Your task to perform on an android device: Open network settings Image 0: 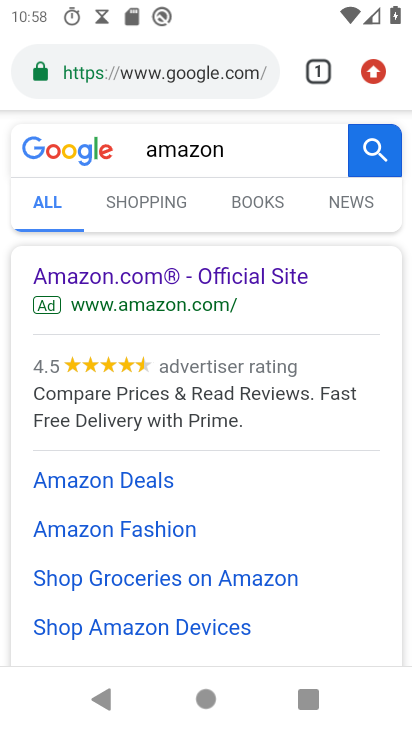
Step 0: press home button
Your task to perform on an android device: Open network settings Image 1: 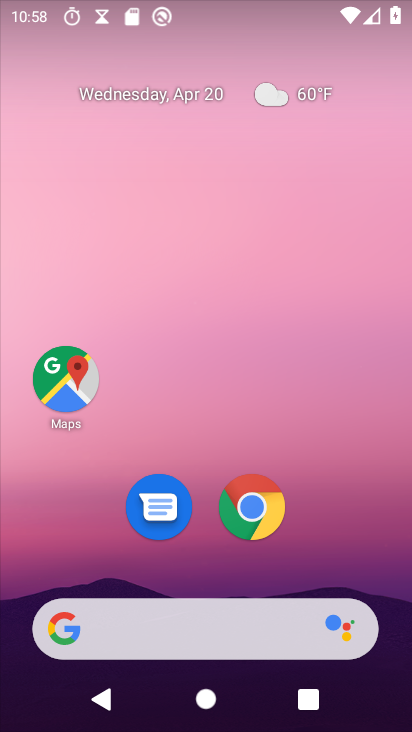
Step 1: drag from (190, 514) to (221, 145)
Your task to perform on an android device: Open network settings Image 2: 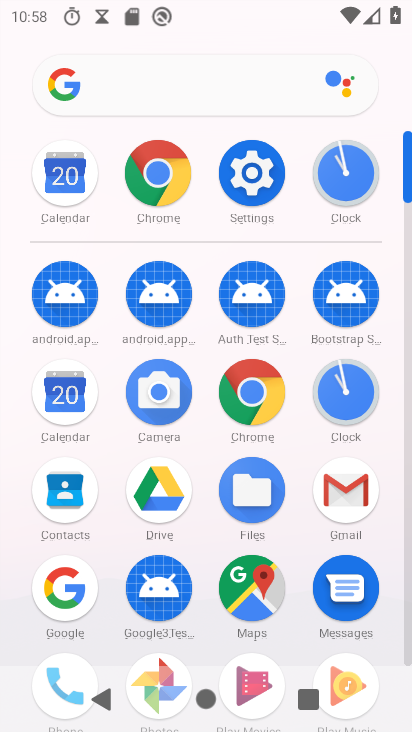
Step 2: click (241, 174)
Your task to perform on an android device: Open network settings Image 3: 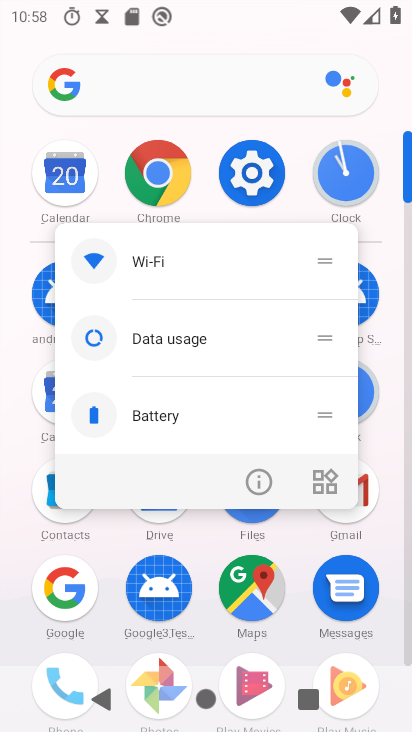
Step 3: click (264, 480)
Your task to perform on an android device: Open network settings Image 4: 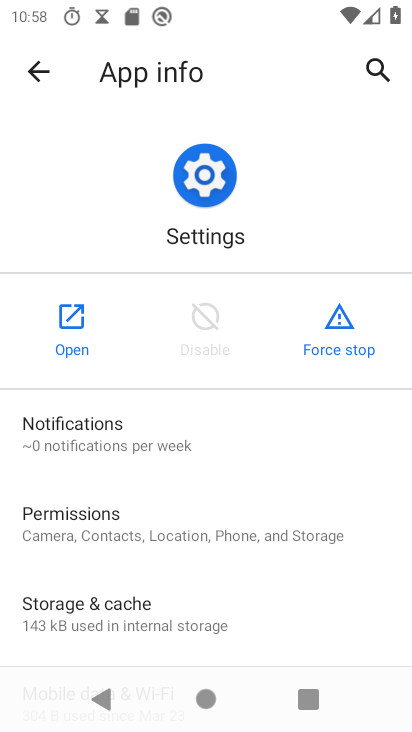
Step 4: click (73, 331)
Your task to perform on an android device: Open network settings Image 5: 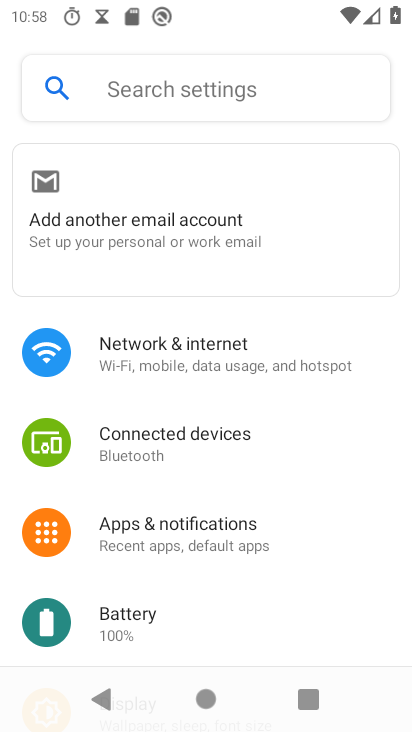
Step 5: click (151, 368)
Your task to perform on an android device: Open network settings Image 6: 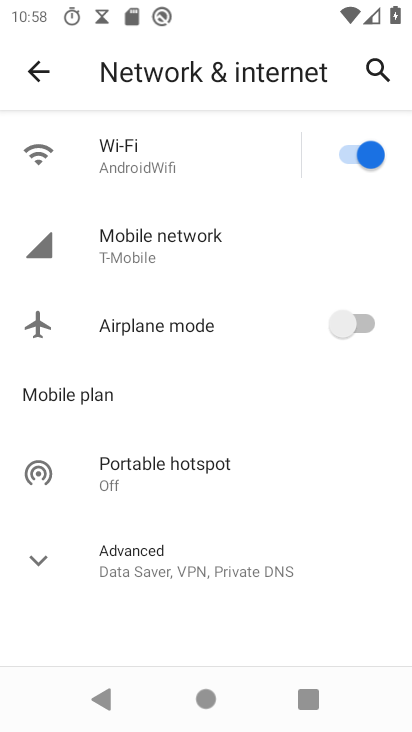
Step 6: task complete